Your task to perform on an android device: turn on notifications settings in the gmail app Image 0: 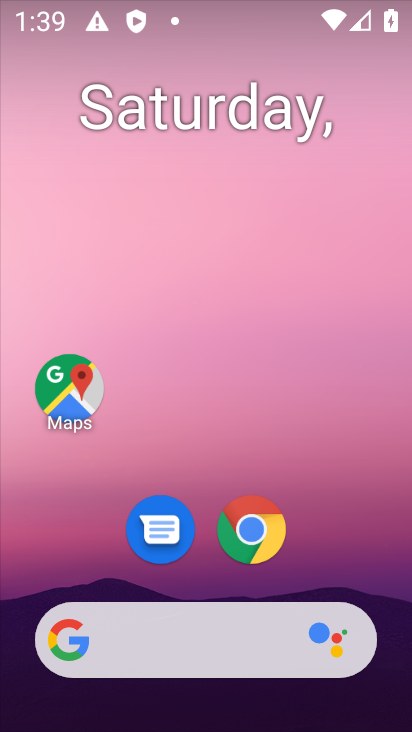
Step 0: drag from (340, 560) to (241, 67)
Your task to perform on an android device: turn on notifications settings in the gmail app Image 1: 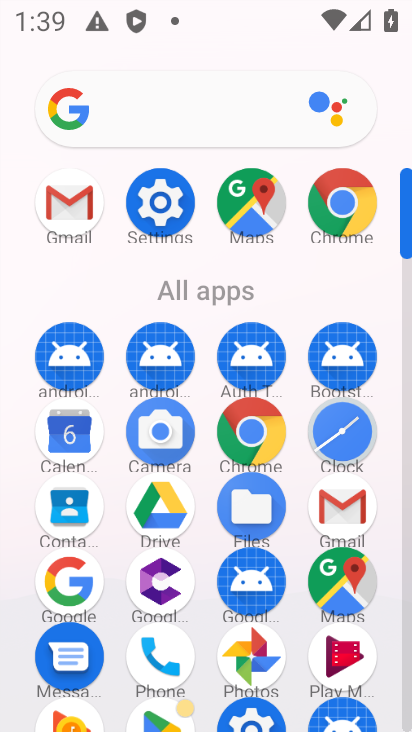
Step 1: click (73, 215)
Your task to perform on an android device: turn on notifications settings in the gmail app Image 2: 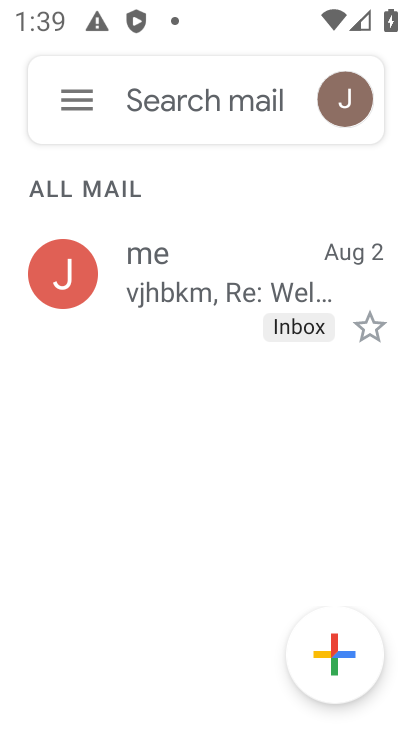
Step 2: click (90, 98)
Your task to perform on an android device: turn on notifications settings in the gmail app Image 3: 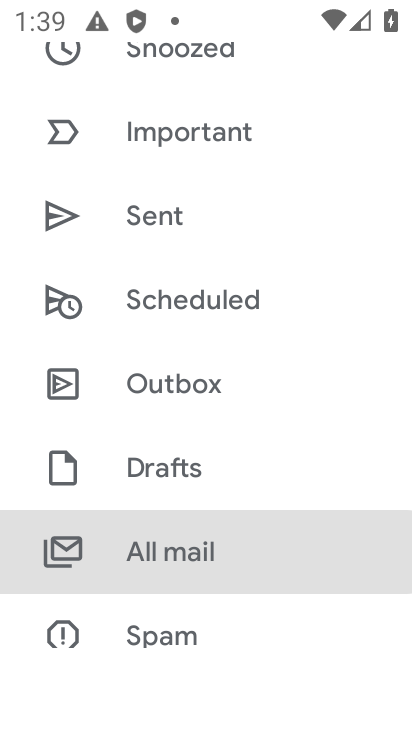
Step 3: drag from (262, 613) to (237, 214)
Your task to perform on an android device: turn on notifications settings in the gmail app Image 4: 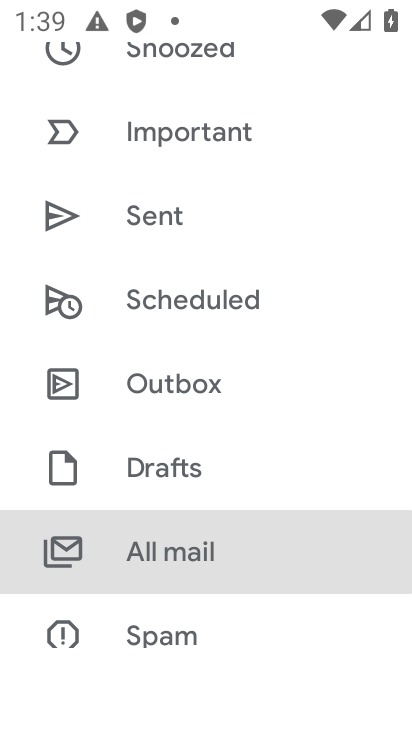
Step 4: drag from (265, 645) to (224, 59)
Your task to perform on an android device: turn on notifications settings in the gmail app Image 5: 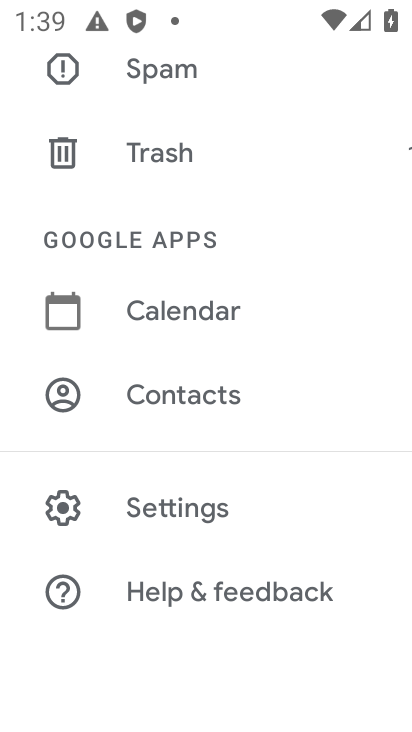
Step 5: click (256, 504)
Your task to perform on an android device: turn on notifications settings in the gmail app Image 6: 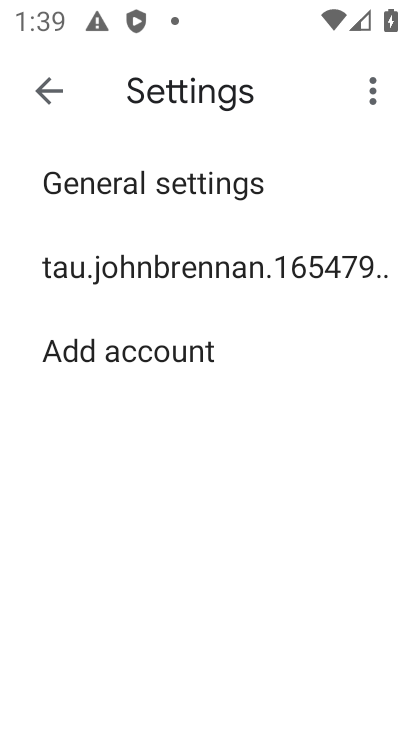
Step 6: click (208, 286)
Your task to perform on an android device: turn on notifications settings in the gmail app Image 7: 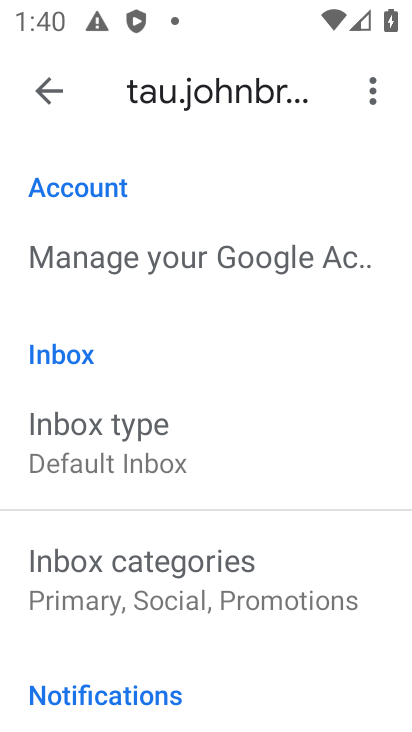
Step 7: drag from (250, 647) to (216, 186)
Your task to perform on an android device: turn on notifications settings in the gmail app Image 8: 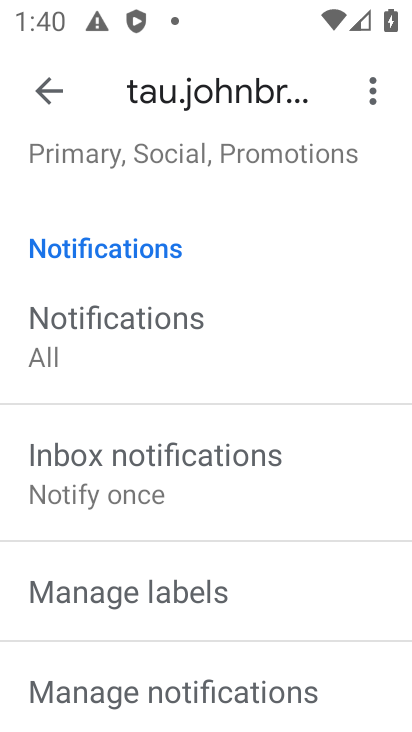
Step 8: drag from (292, 662) to (273, 274)
Your task to perform on an android device: turn on notifications settings in the gmail app Image 9: 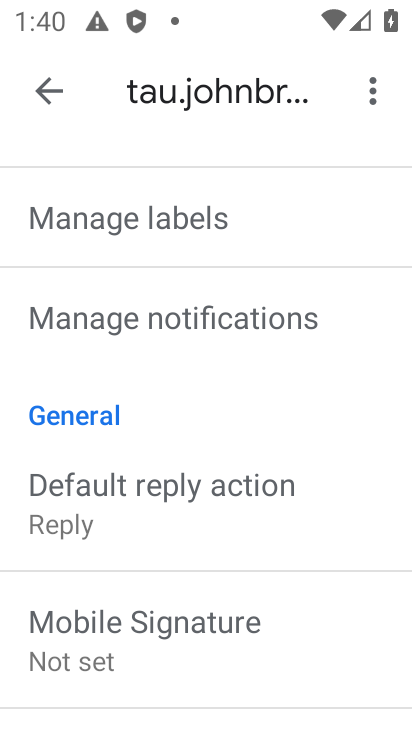
Step 9: click (294, 330)
Your task to perform on an android device: turn on notifications settings in the gmail app Image 10: 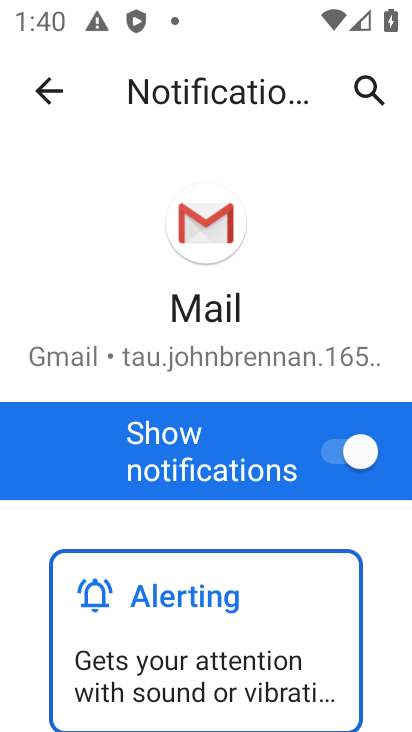
Step 10: drag from (387, 610) to (323, 139)
Your task to perform on an android device: turn on notifications settings in the gmail app Image 11: 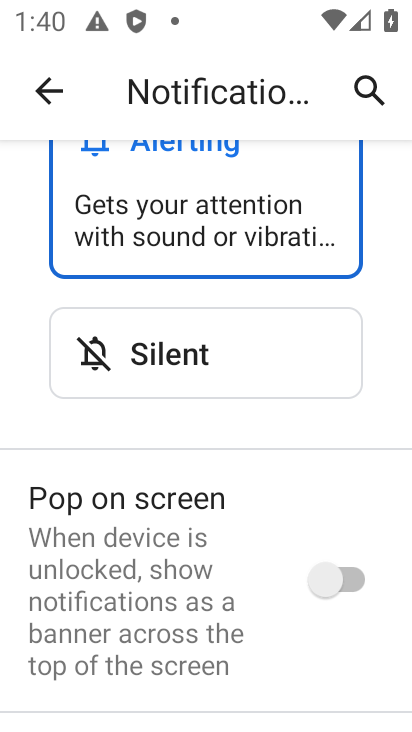
Step 11: click (338, 581)
Your task to perform on an android device: turn on notifications settings in the gmail app Image 12: 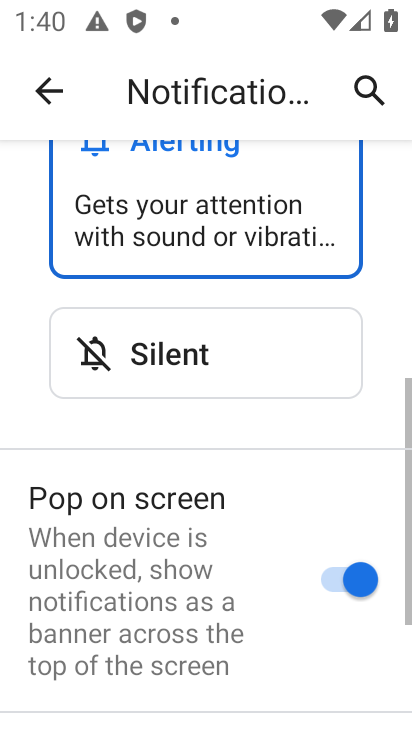
Step 12: drag from (266, 558) to (239, 186)
Your task to perform on an android device: turn on notifications settings in the gmail app Image 13: 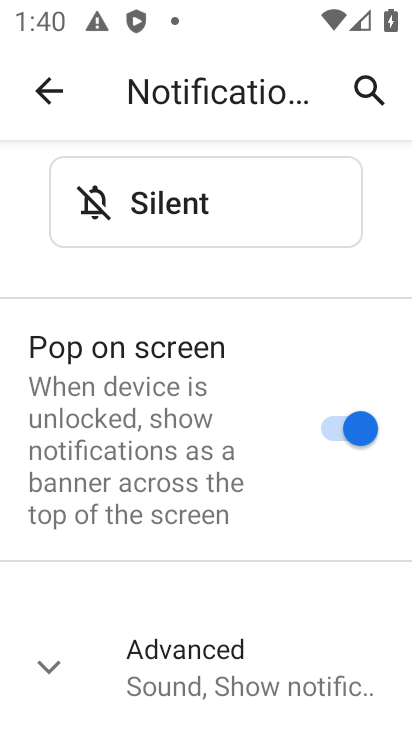
Step 13: click (323, 664)
Your task to perform on an android device: turn on notifications settings in the gmail app Image 14: 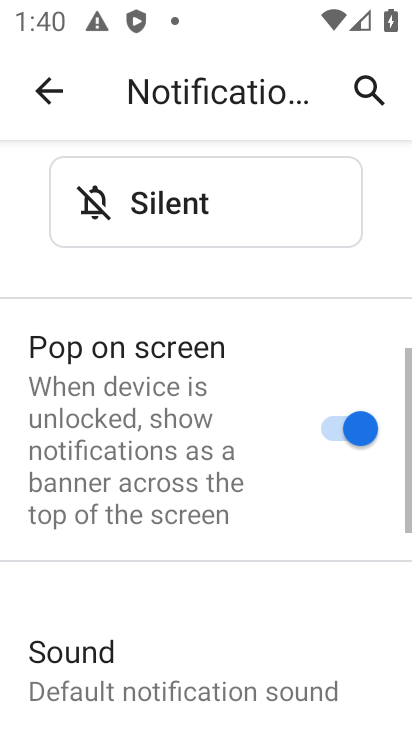
Step 14: drag from (323, 664) to (243, 181)
Your task to perform on an android device: turn on notifications settings in the gmail app Image 15: 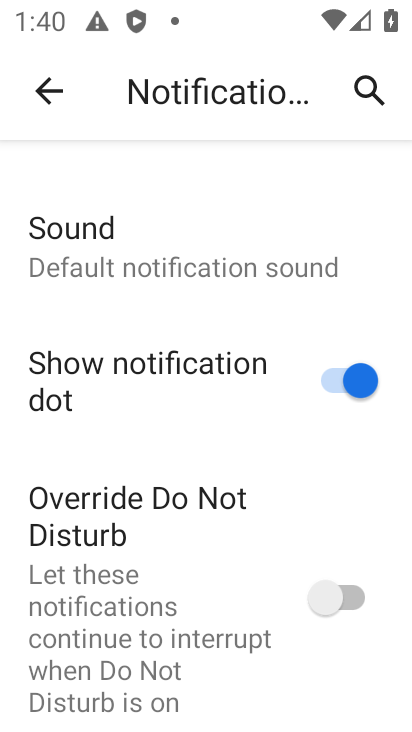
Step 15: click (350, 609)
Your task to perform on an android device: turn on notifications settings in the gmail app Image 16: 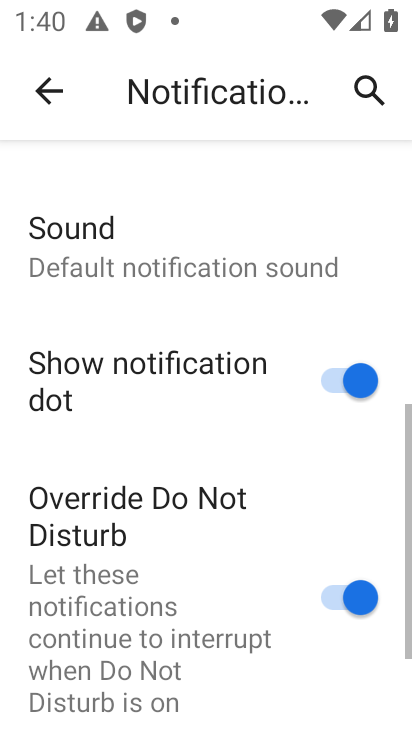
Step 16: task complete